Your task to perform on an android device: Show me popular videos on Youtube Image 0: 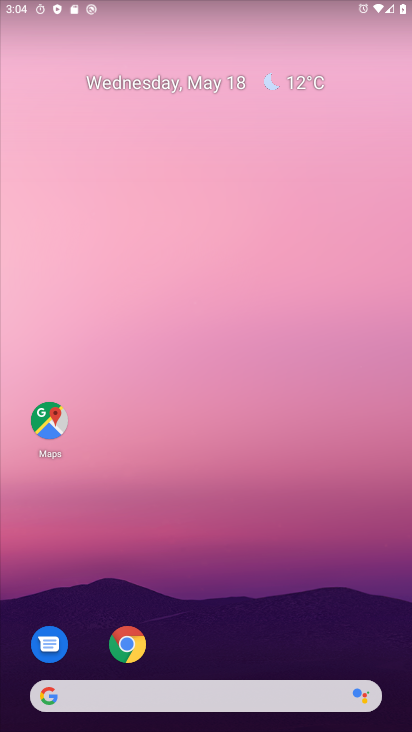
Step 0: drag from (374, 674) to (361, 271)
Your task to perform on an android device: Show me popular videos on Youtube Image 1: 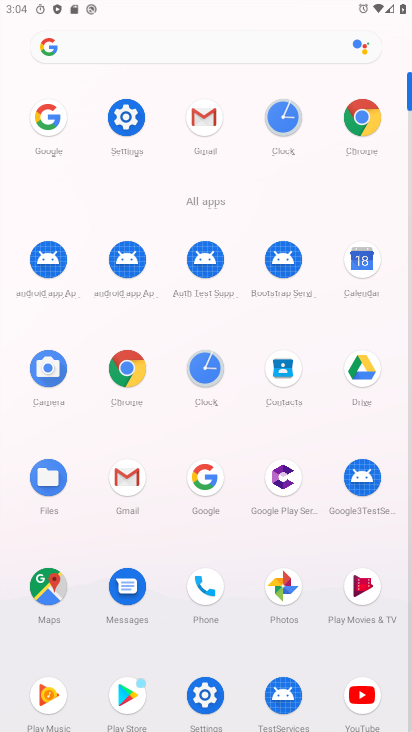
Step 1: click (377, 678)
Your task to perform on an android device: Show me popular videos on Youtube Image 2: 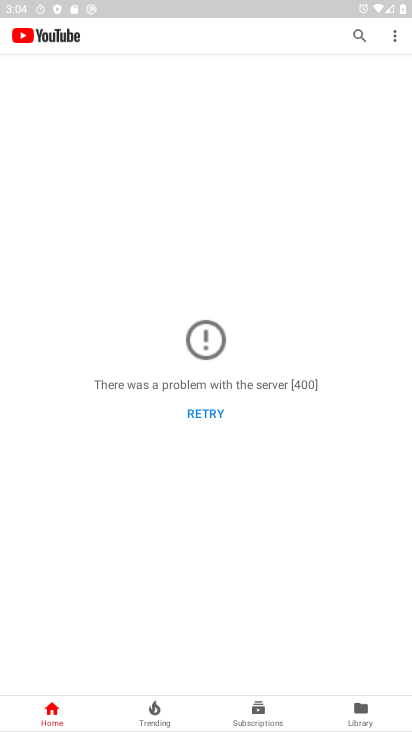
Step 2: task complete